Your task to perform on an android device: install app "WhatsApp Messenger" Image 0: 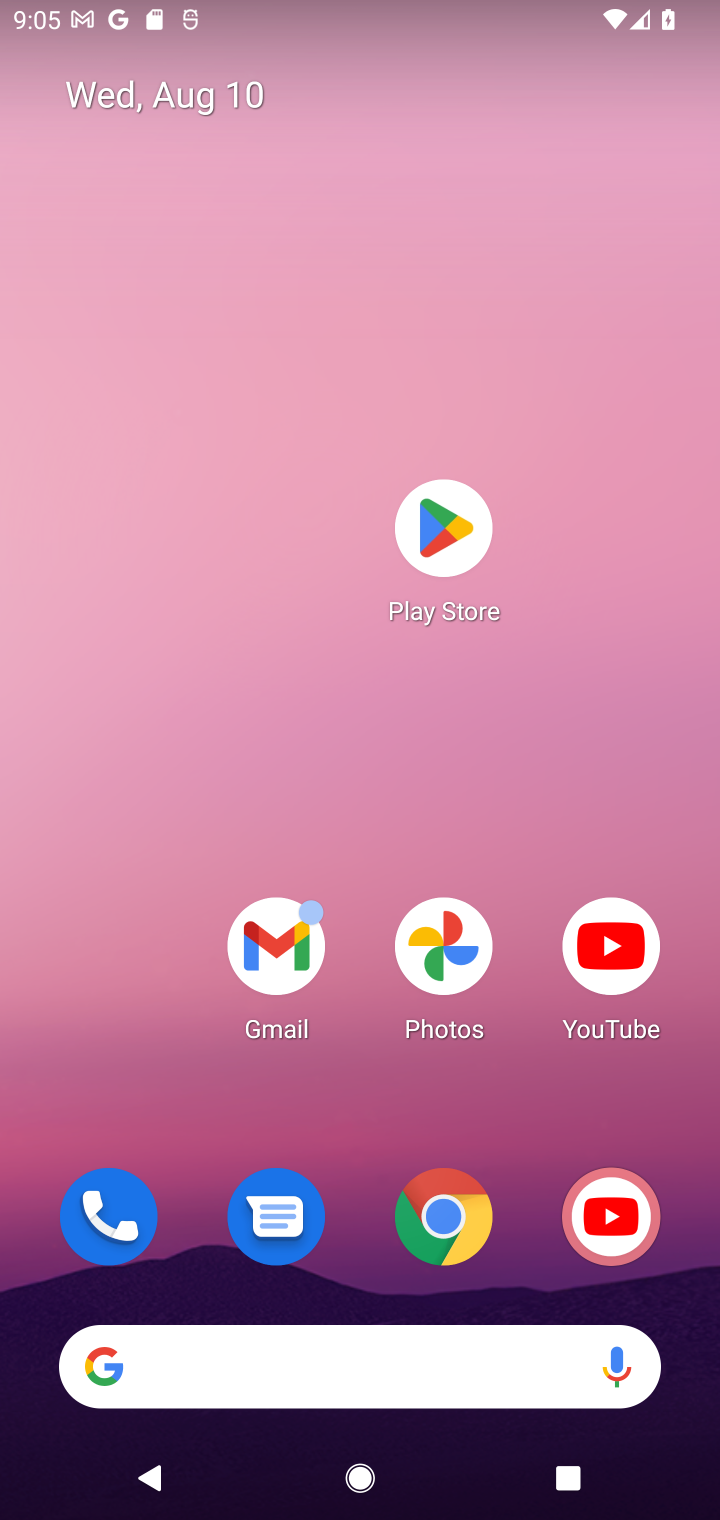
Step 0: press home button
Your task to perform on an android device: install app "WhatsApp Messenger" Image 1: 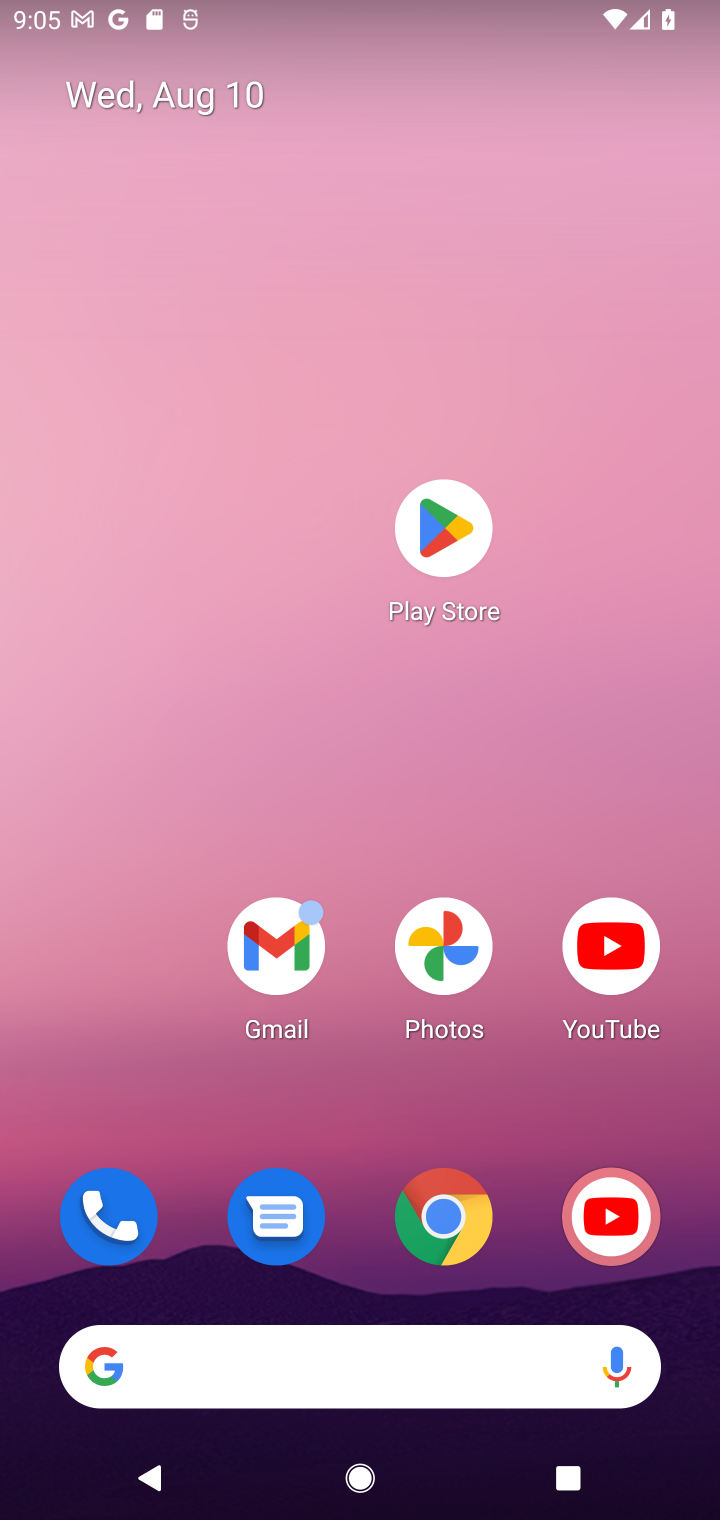
Step 1: click (439, 555)
Your task to perform on an android device: install app "WhatsApp Messenger" Image 2: 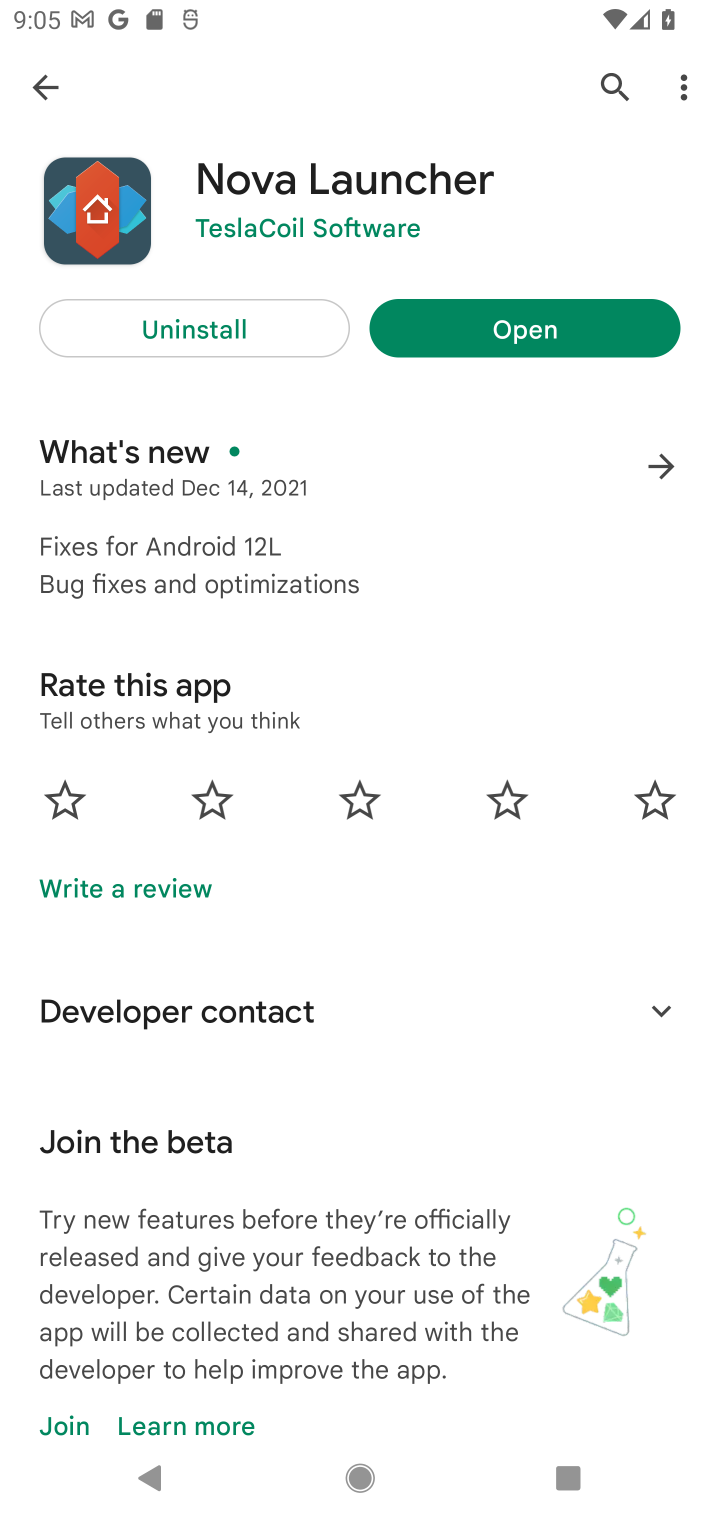
Step 2: click (603, 90)
Your task to perform on an android device: install app "WhatsApp Messenger" Image 3: 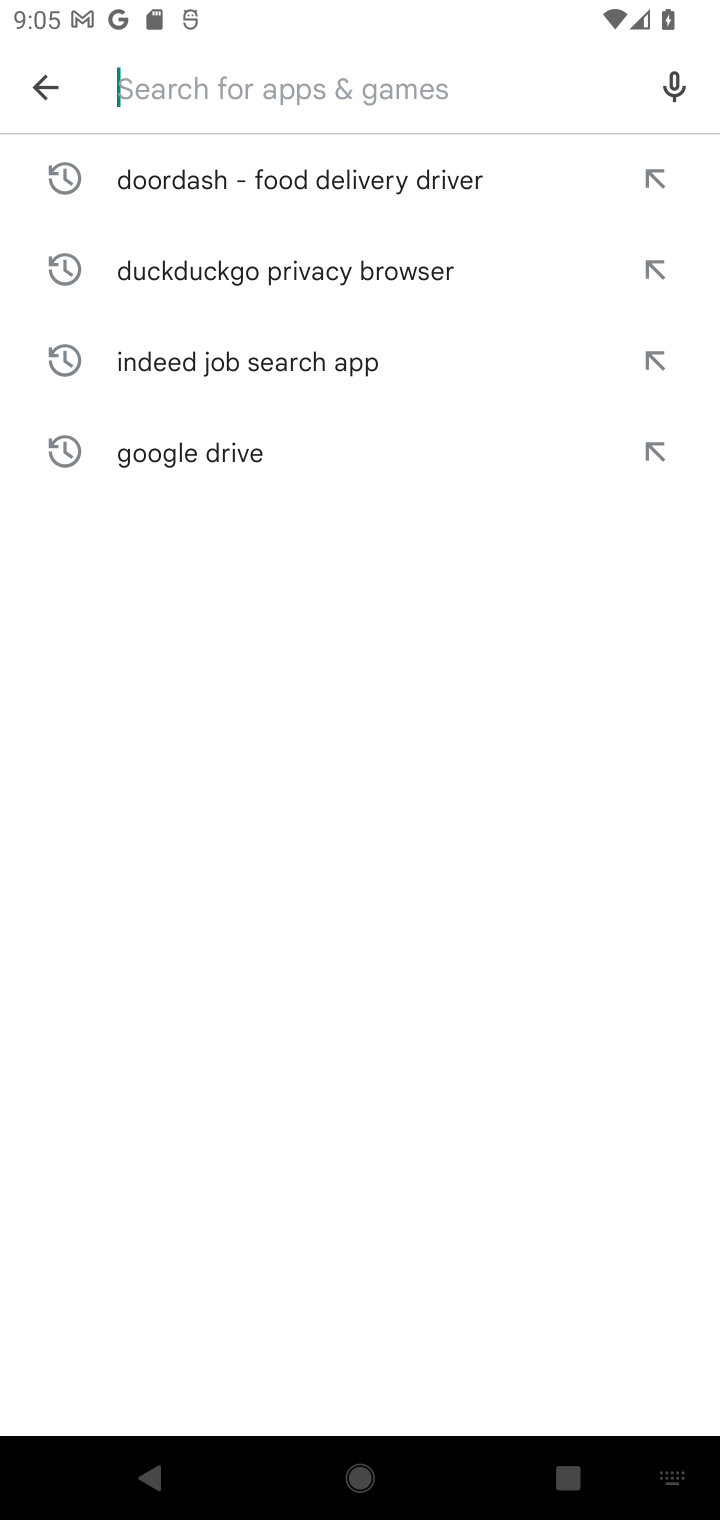
Step 3: type "WhatsApp Messenger"
Your task to perform on an android device: install app "WhatsApp Messenger" Image 4: 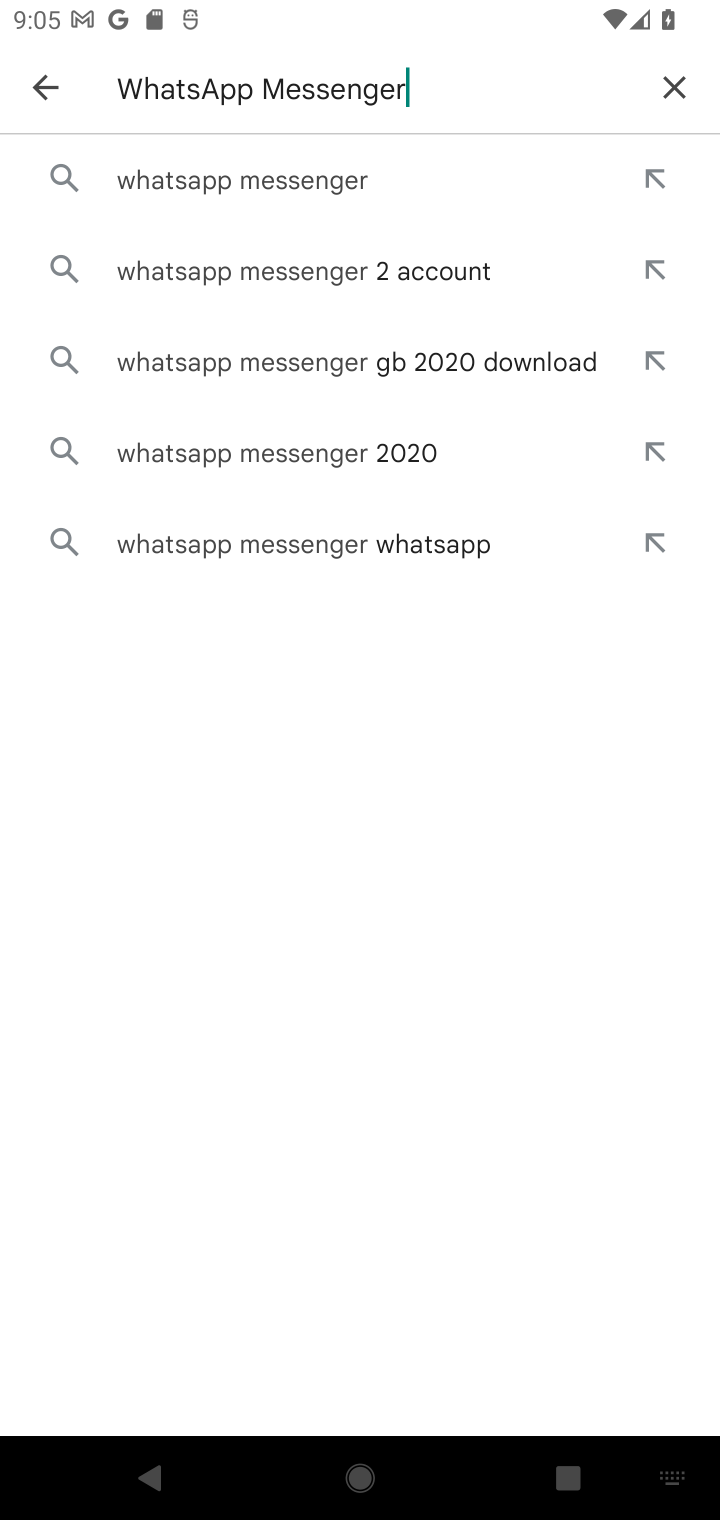
Step 4: click (346, 194)
Your task to perform on an android device: install app "WhatsApp Messenger" Image 5: 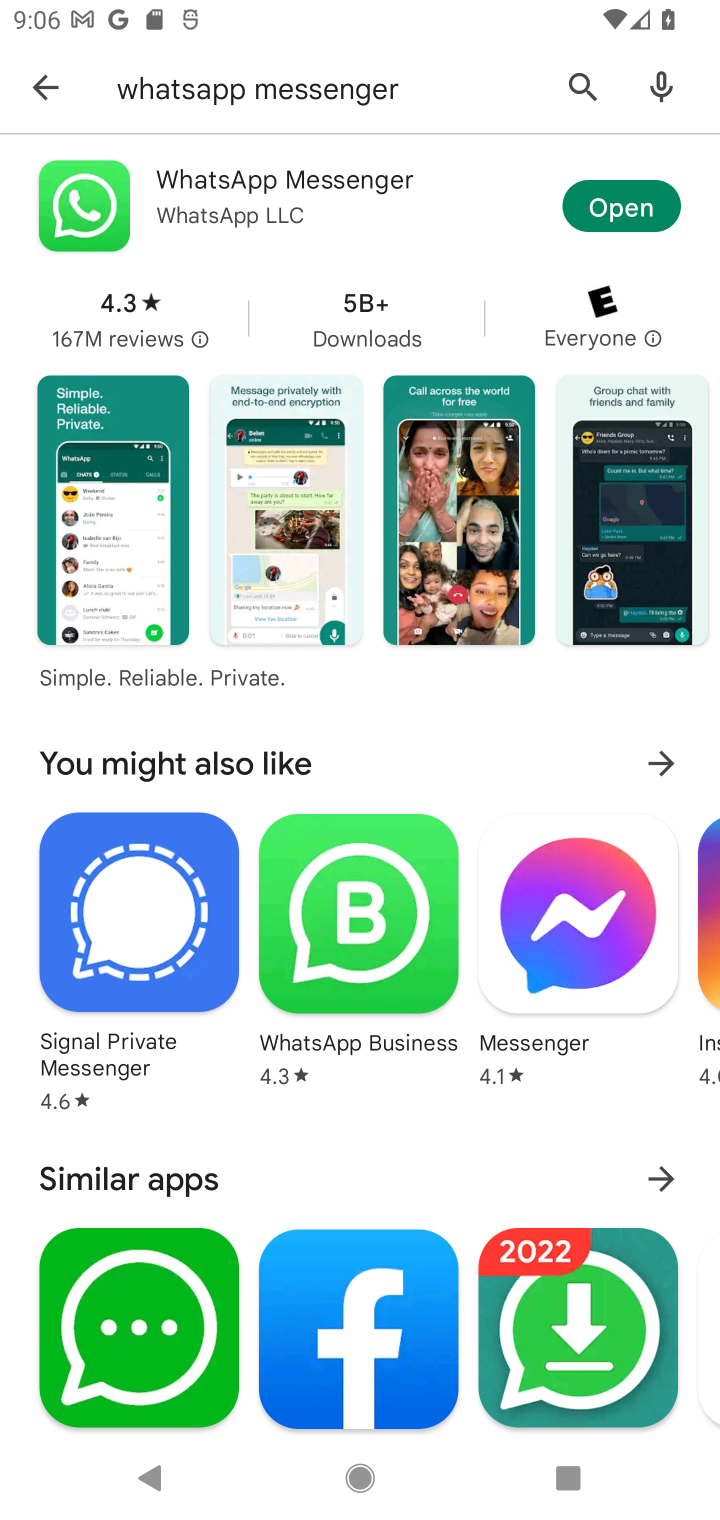
Step 5: task complete